Your task to perform on an android device: turn on improve location accuracy Image 0: 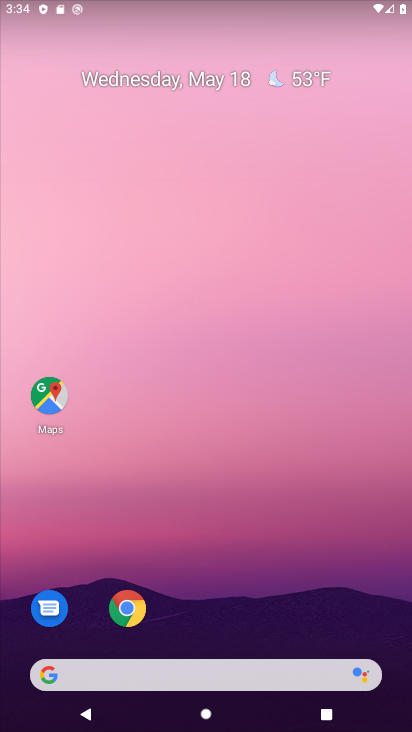
Step 0: drag from (335, 673) to (355, 2)
Your task to perform on an android device: turn on improve location accuracy Image 1: 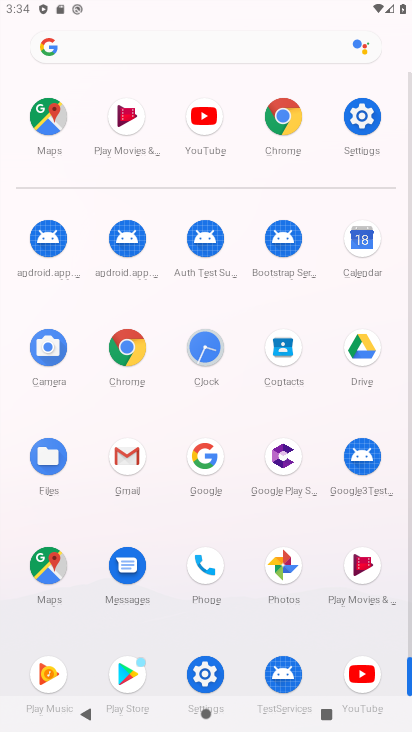
Step 1: click (365, 124)
Your task to perform on an android device: turn on improve location accuracy Image 2: 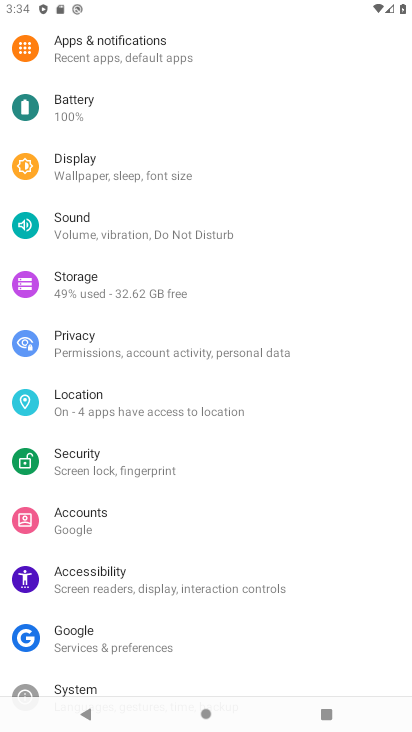
Step 2: click (113, 409)
Your task to perform on an android device: turn on improve location accuracy Image 3: 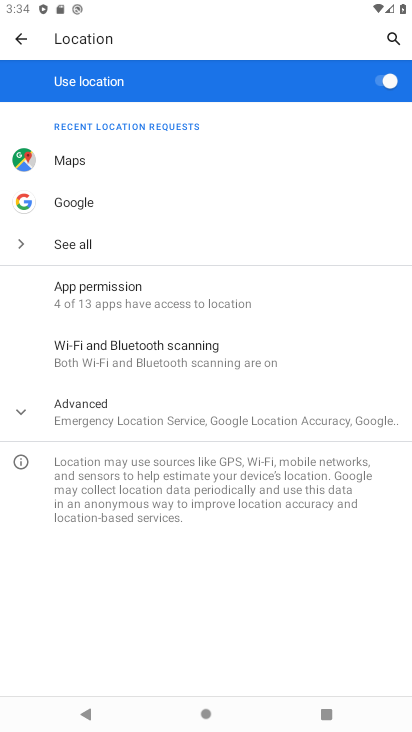
Step 3: click (184, 409)
Your task to perform on an android device: turn on improve location accuracy Image 4: 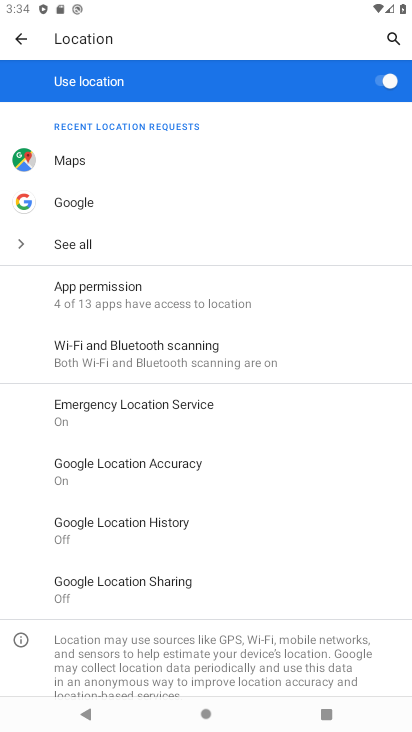
Step 4: click (137, 466)
Your task to perform on an android device: turn on improve location accuracy Image 5: 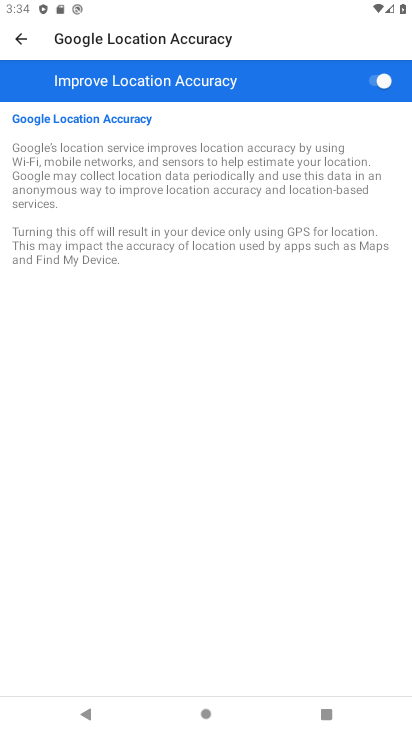
Step 5: task complete